Your task to perform on an android device: check android version Image 0: 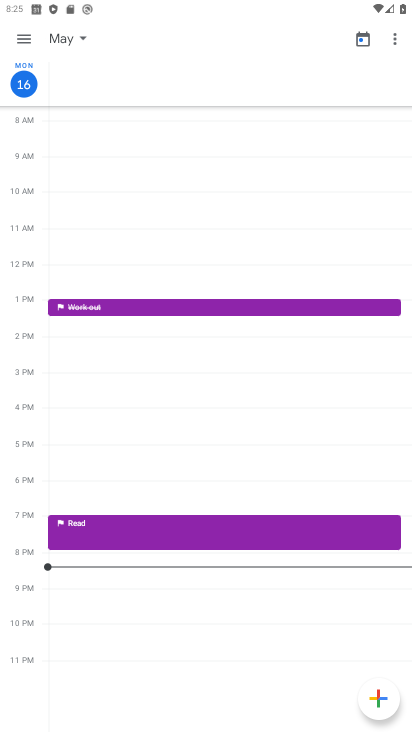
Step 0: press home button
Your task to perform on an android device: check android version Image 1: 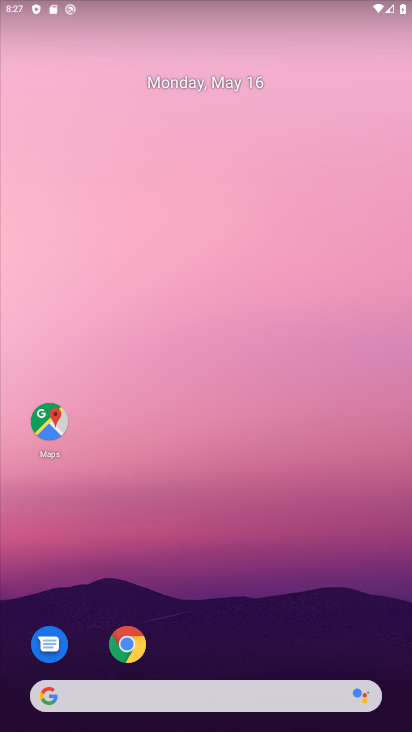
Step 1: drag from (75, 714) to (198, 12)
Your task to perform on an android device: check android version Image 2: 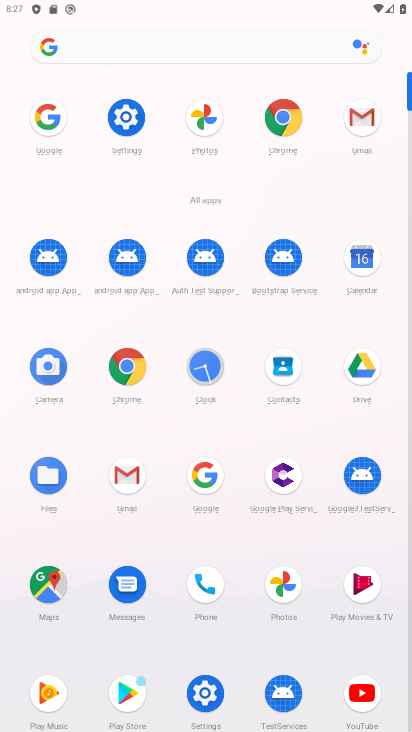
Step 2: click (125, 125)
Your task to perform on an android device: check android version Image 3: 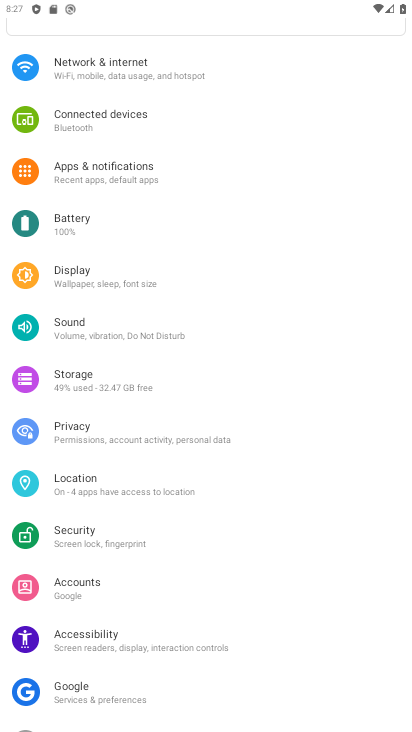
Step 3: drag from (271, 622) to (382, 87)
Your task to perform on an android device: check android version Image 4: 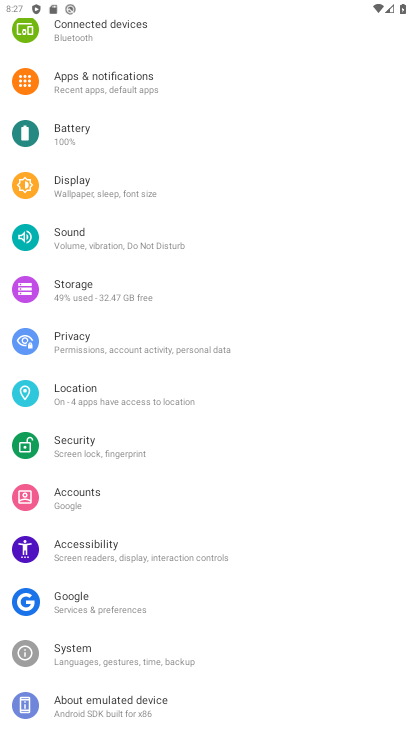
Step 4: click (242, 699)
Your task to perform on an android device: check android version Image 5: 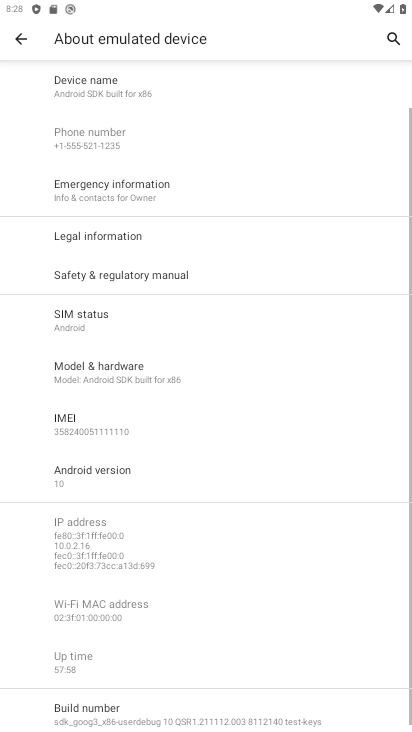
Step 5: press home button
Your task to perform on an android device: check android version Image 6: 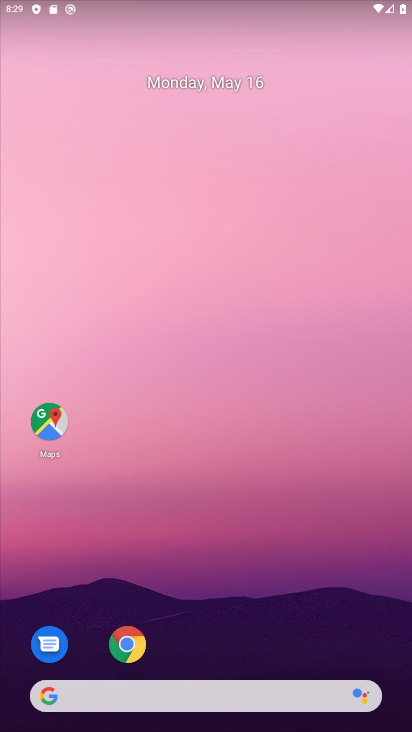
Step 6: drag from (162, 727) to (184, 47)
Your task to perform on an android device: check android version Image 7: 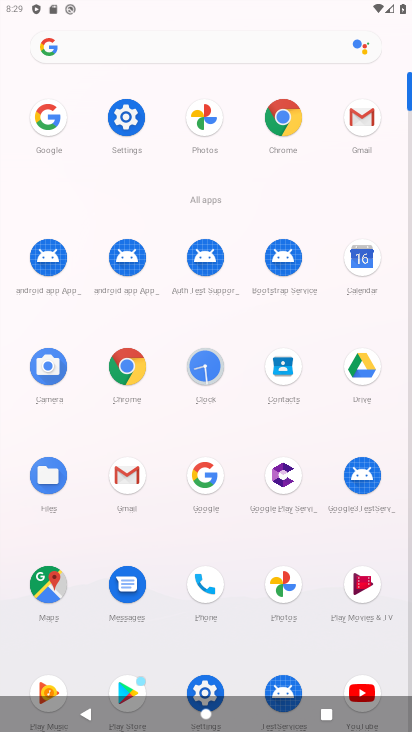
Step 7: click (120, 99)
Your task to perform on an android device: check android version Image 8: 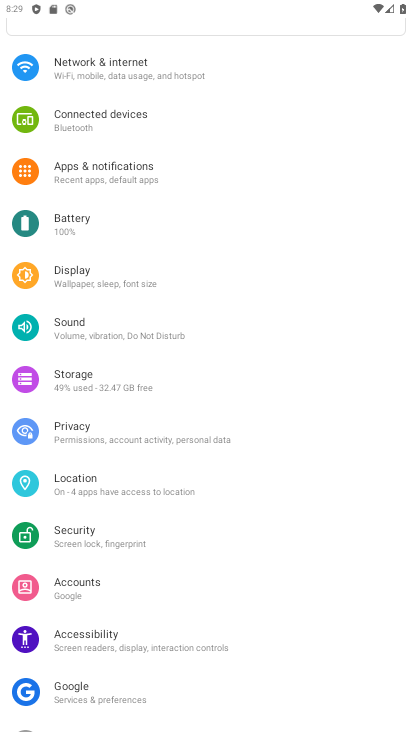
Step 8: drag from (240, 671) to (286, 91)
Your task to perform on an android device: check android version Image 9: 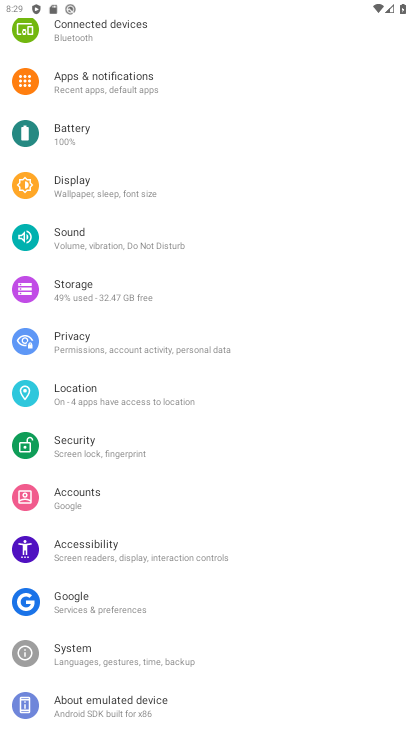
Step 9: click (149, 720)
Your task to perform on an android device: check android version Image 10: 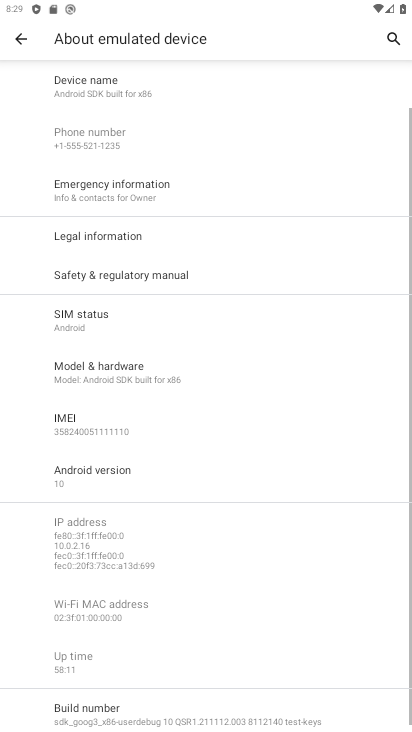
Step 10: task complete